Your task to perform on an android device: set an alarm Image 0: 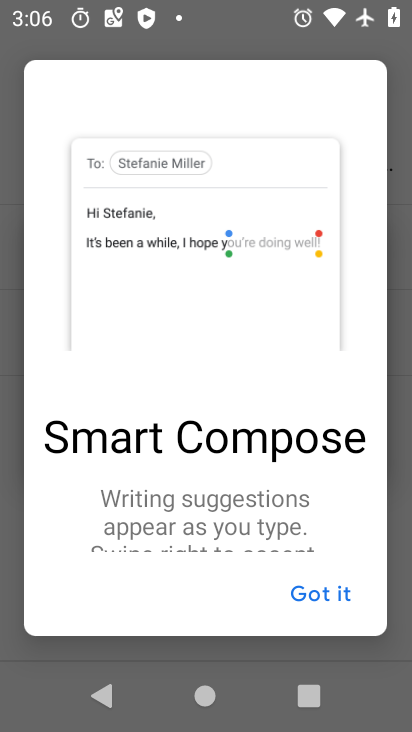
Step 0: press home button
Your task to perform on an android device: set an alarm Image 1: 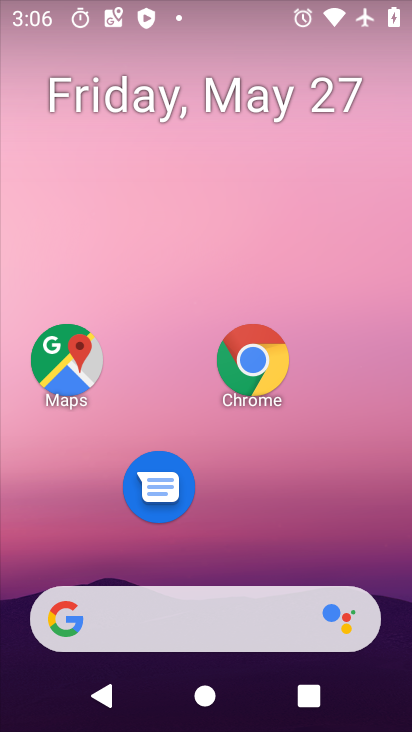
Step 1: drag from (243, 531) to (263, 80)
Your task to perform on an android device: set an alarm Image 2: 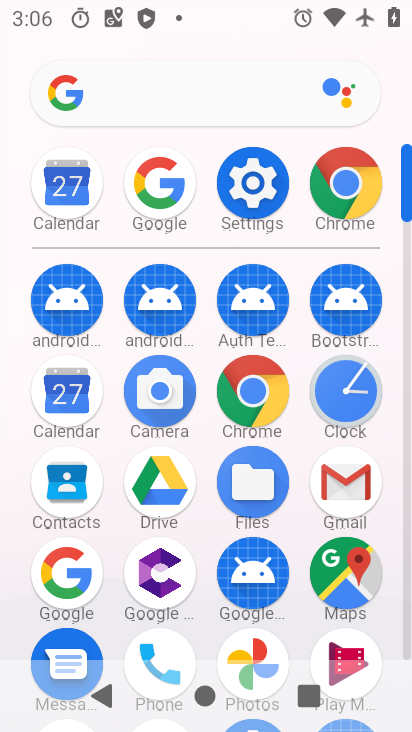
Step 2: click (339, 398)
Your task to perform on an android device: set an alarm Image 3: 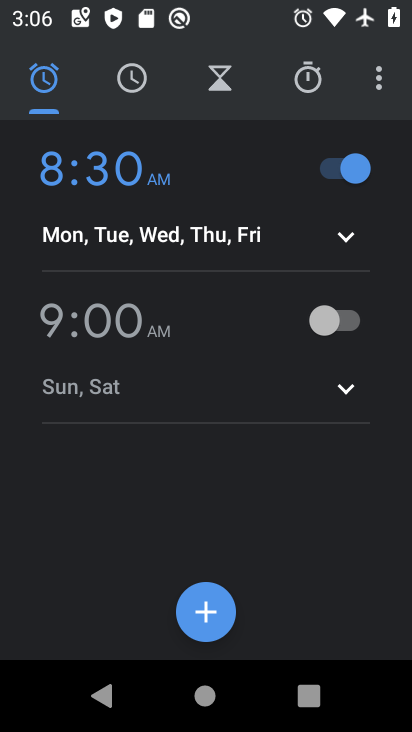
Step 3: click (336, 311)
Your task to perform on an android device: set an alarm Image 4: 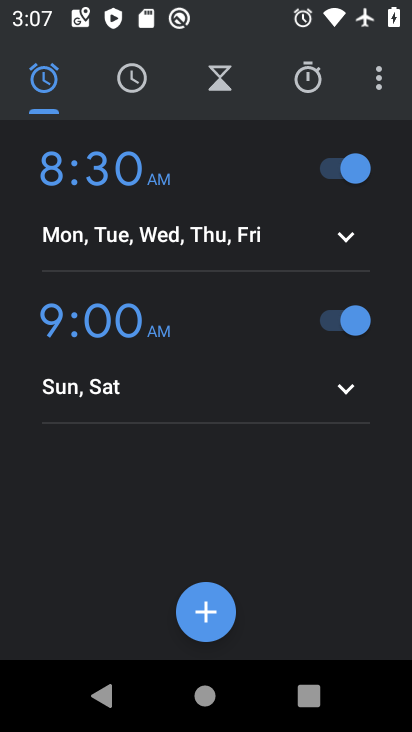
Step 4: task complete